Your task to perform on an android device: Do I have any events this weekend? Image 0: 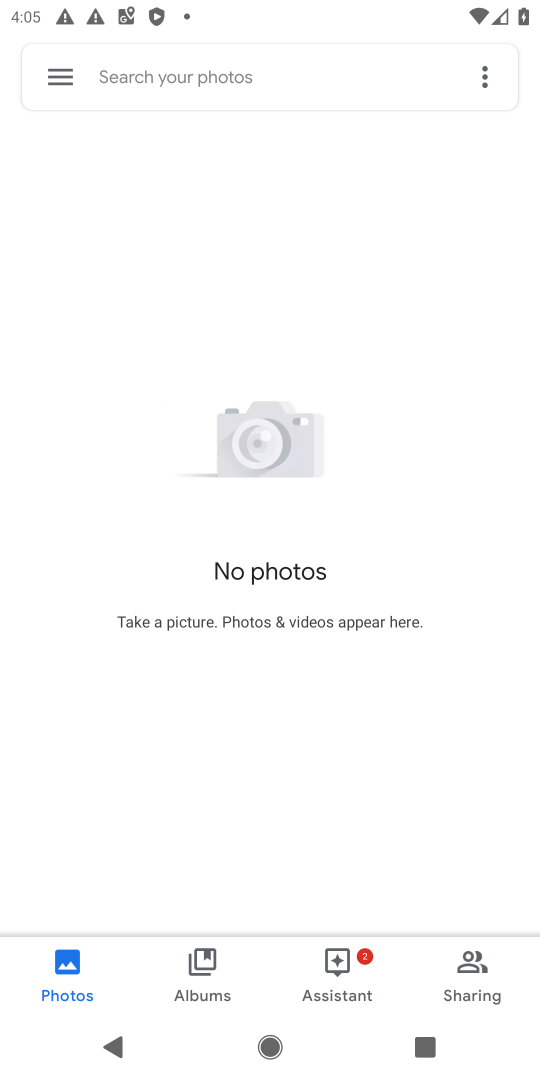
Step 0: press home button
Your task to perform on an android device: Do I have any events this weekend? Image 1: 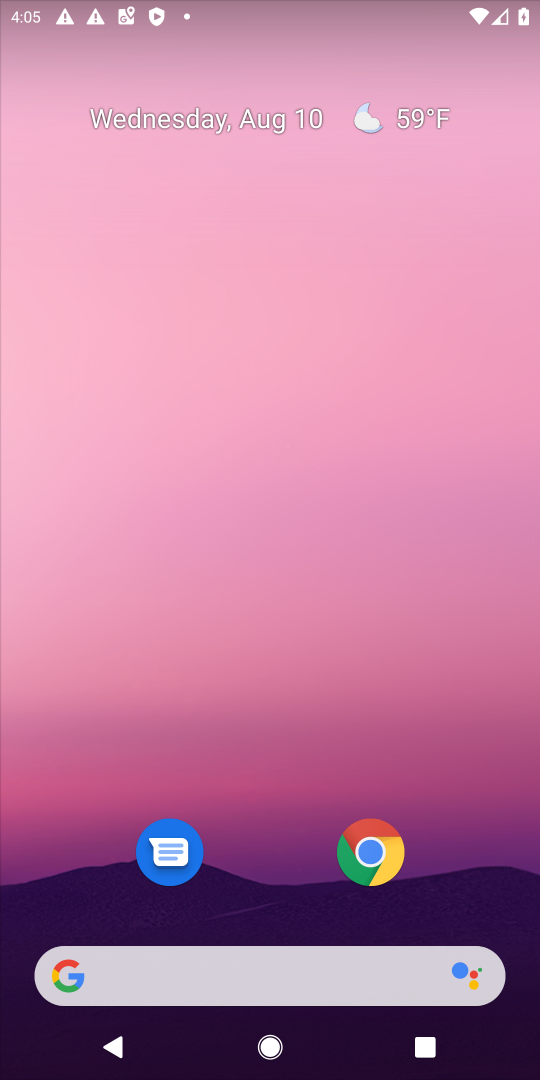
Step 1: drag from (297, 863) to (241, 379)
Your task to perform on an android device: Do I have any events this weekend? Image 2: 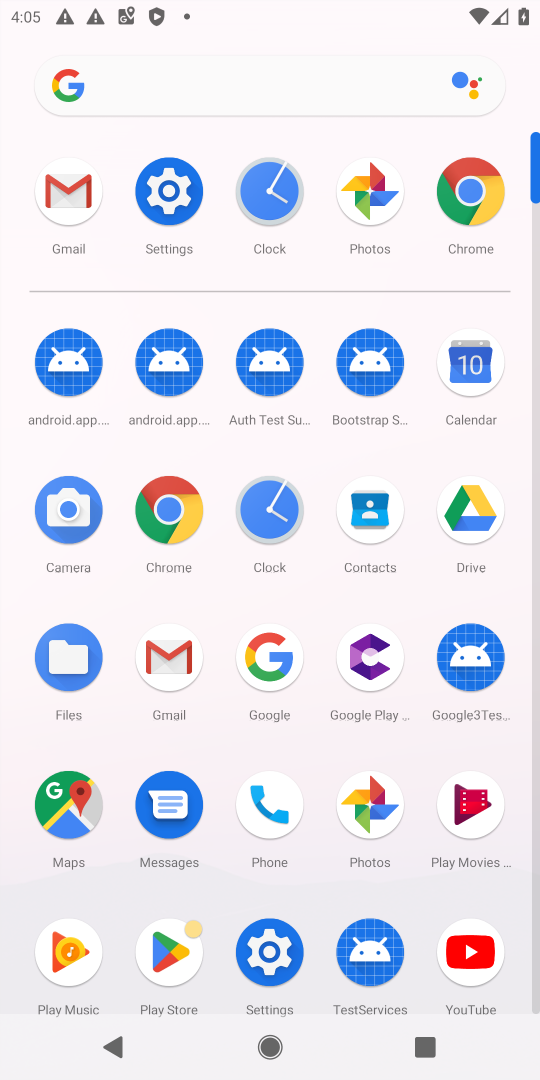
Step 2: click (465, 368)
Your task to perform on an android device: Do I have any events this weekend? Image 3: 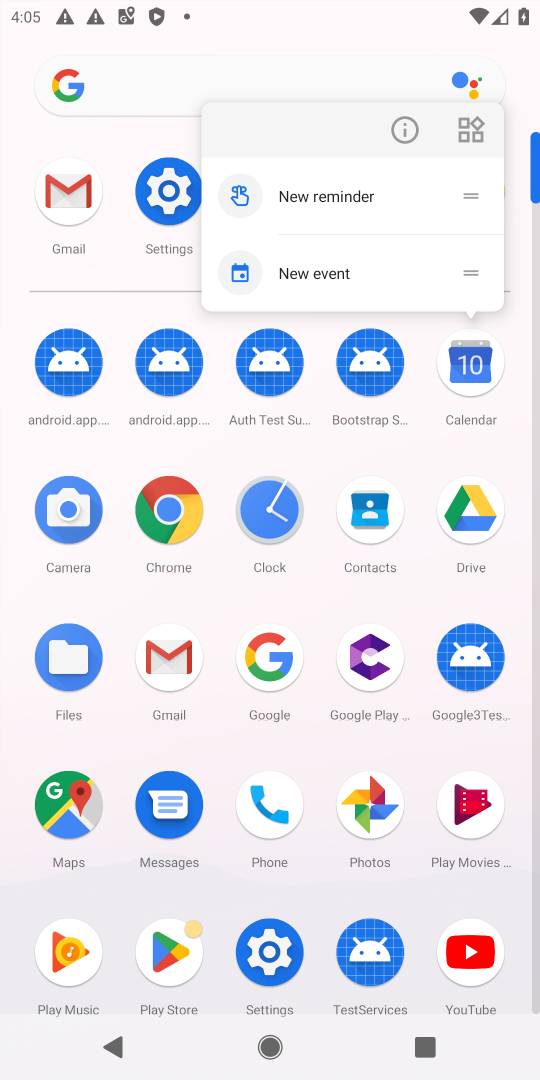
Step 3: click (465, 368)
Your task to perform on an android device: Do I have any events this weekend? Image 4: 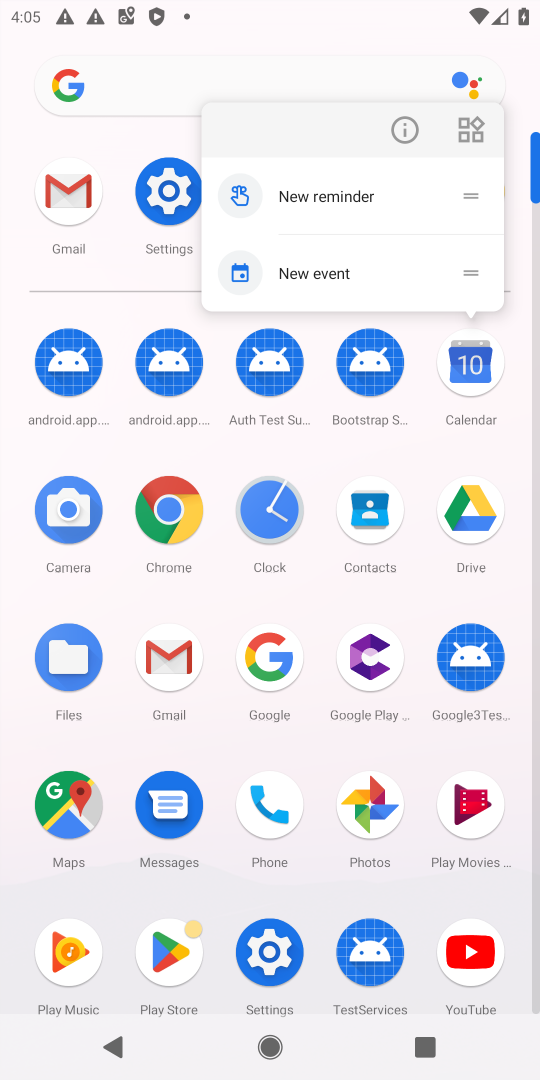
Step 4: click (465, 368)
Your task to perform on an android device: Do I have any events this weekend? Image 5: 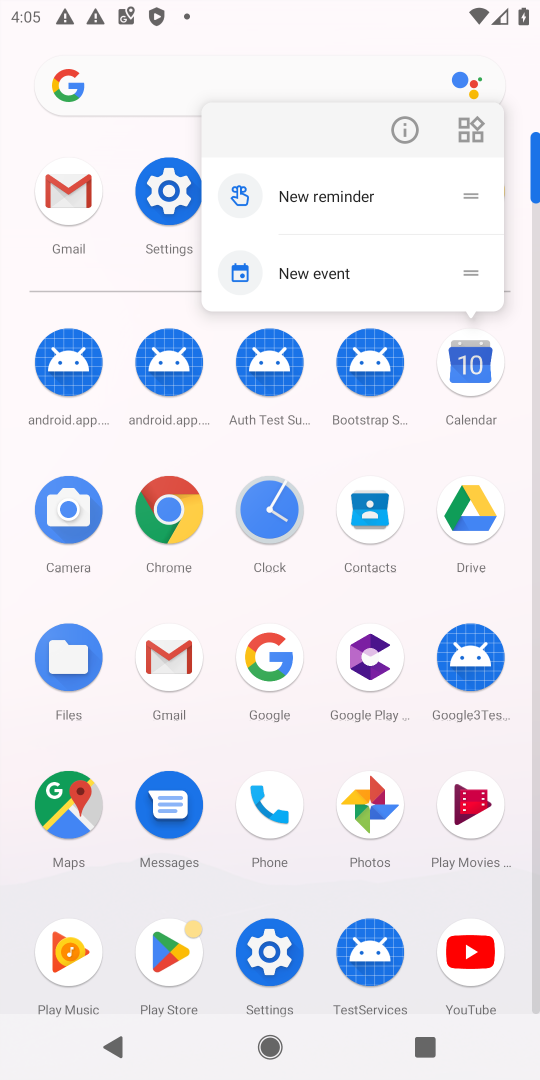
Step 5: click (476, 366)
Your task to perform on an android device: Do I have any events this weekend? Image 6: 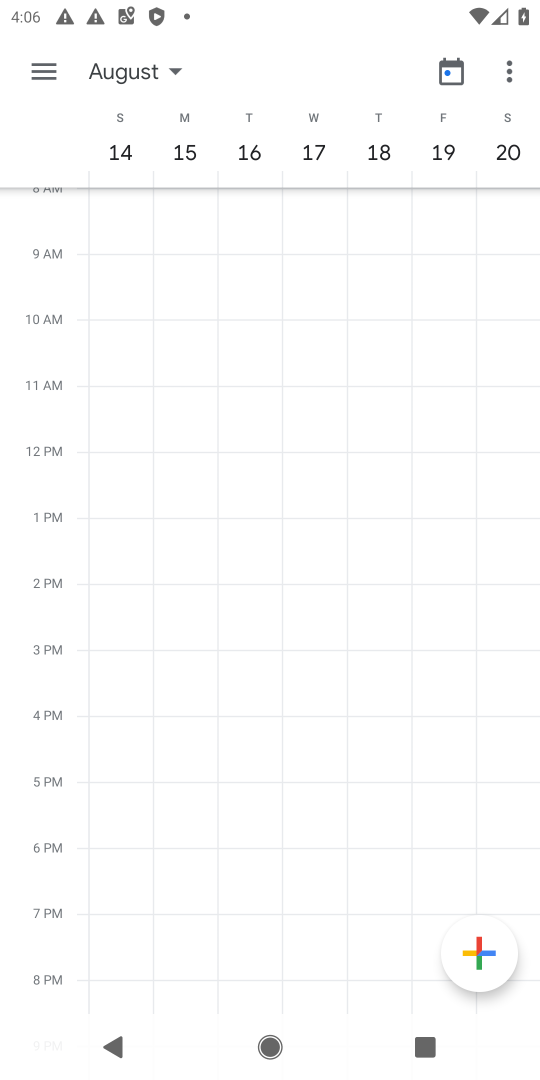
Step 6: click (165, 85)
Your task to perform on an android device: Do I have any events this weekend? Image 7: 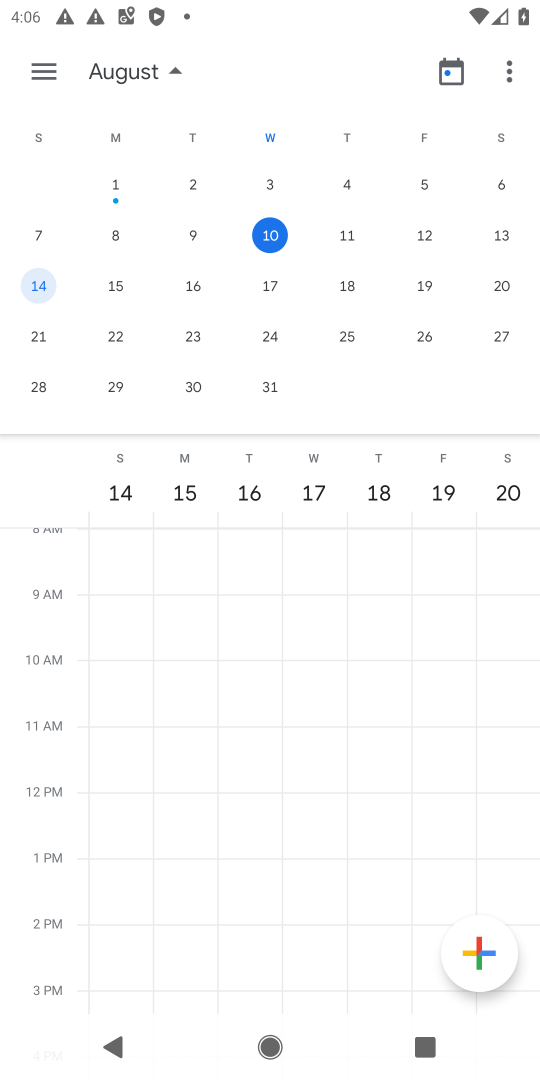
Step 7: click (504, 226)
Your task to perform on an android device: Do I have any events this weekend? Image 8: 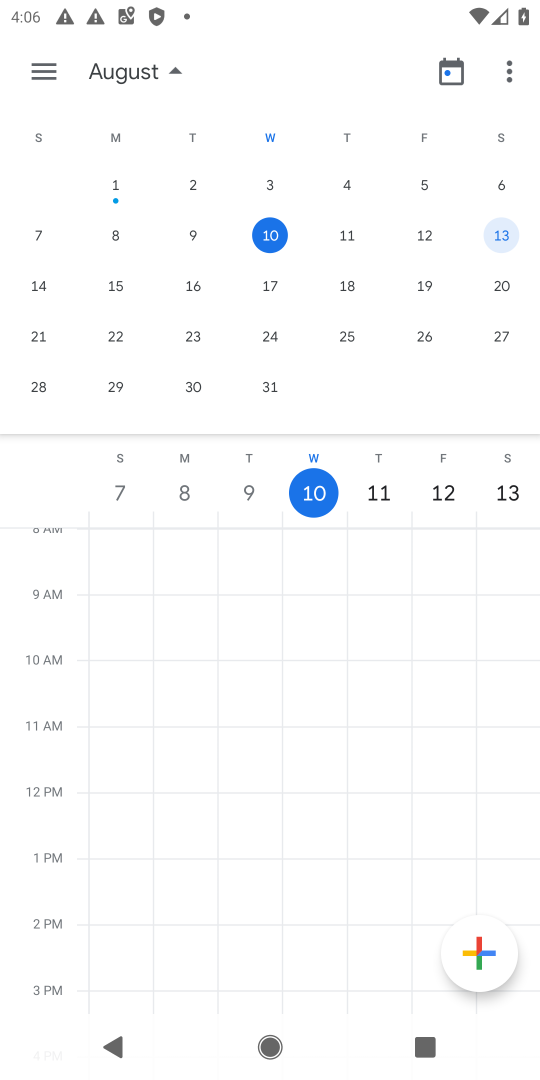
Step 8: click (520, 476)
Your task to perform on an android device: Do I have any events this weekend? Image 9: 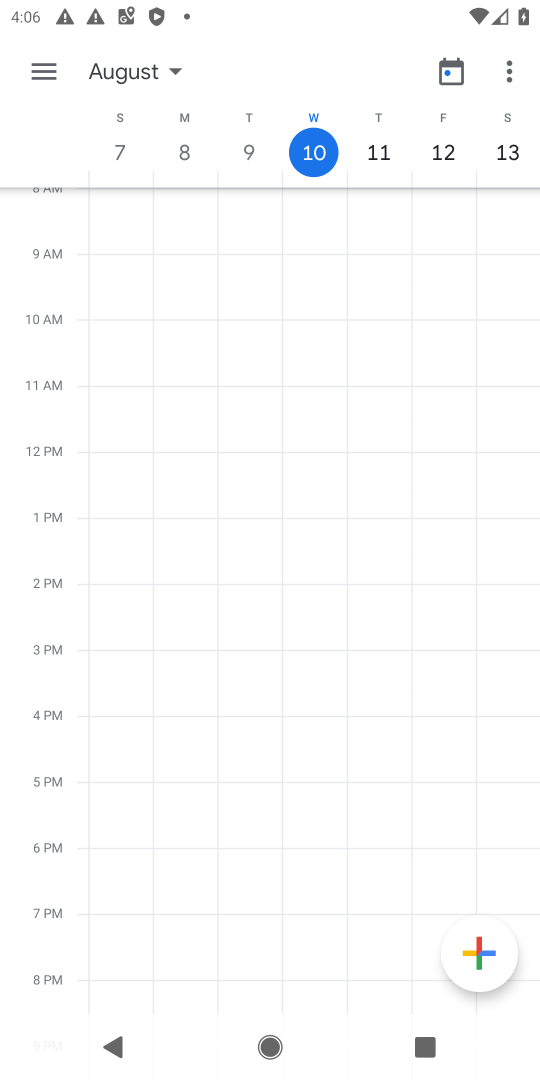
Step 9: click (504, 159)
Your task to perform on an android device: Do I have any events this weekend? Image 10: 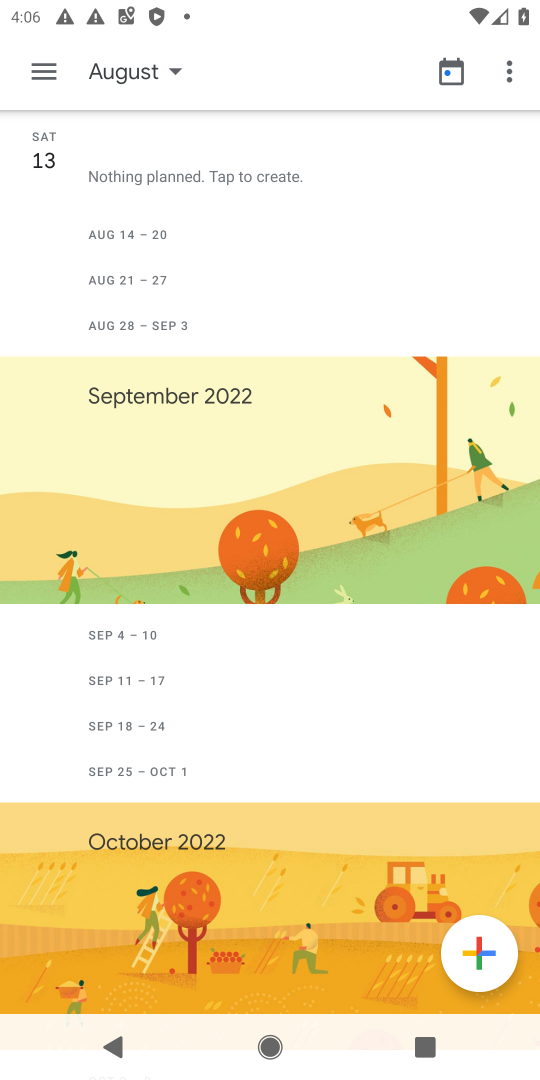
Step 10: task complete